Your task to perform on an android device: allow cookies in the chrome app Image 0: 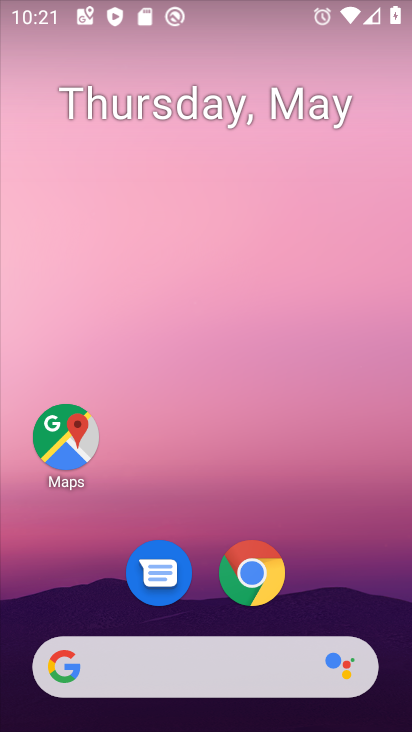
Step 0: click (244, 569)
Your task to perform on an android device: allow cookies in the chrome app Image 1: 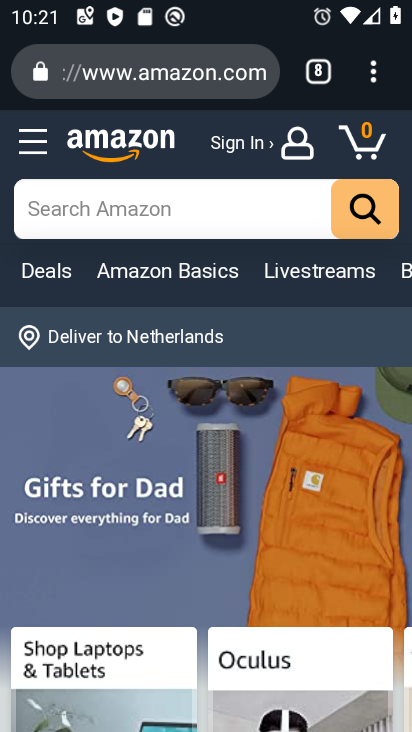
Step 1: click (365, 80)
Your task to perform on an android device: allow cookies in the chrome app Image 2: 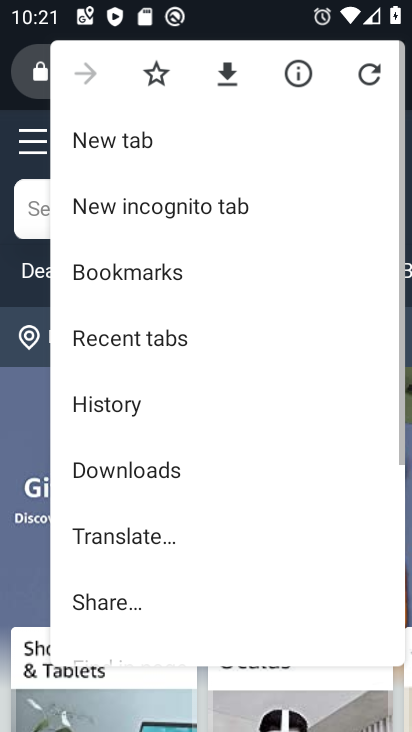
Step 2: drag from (146, 635) to (195, 281)
Your task to perform on an android device: allow cookies in the chrome app Image 3: 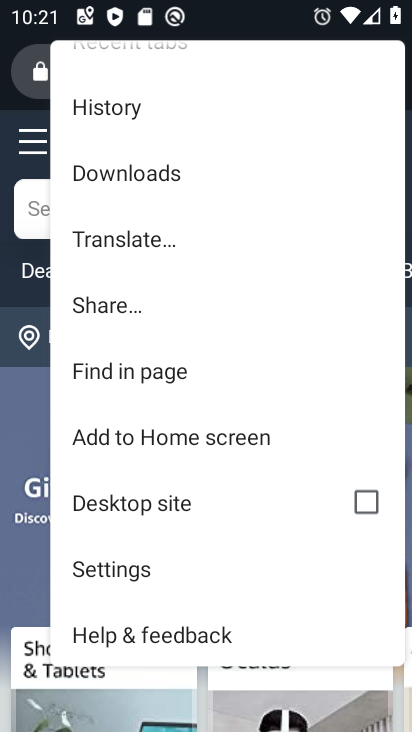
Step 3: click (199, 569)
Your task to perform on an android device: allow cookies in the chrome app Image 4: 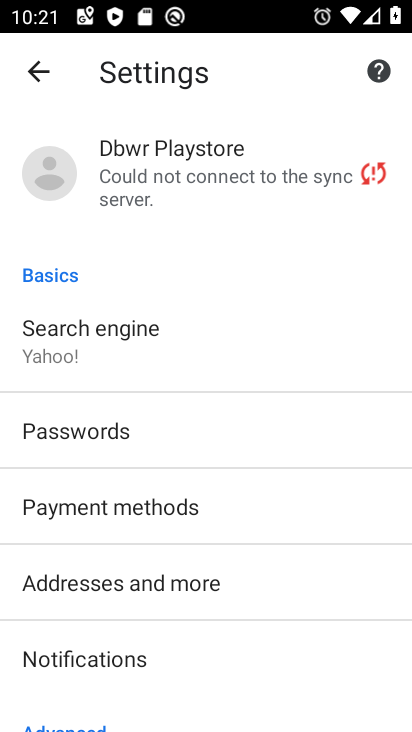
Step 4: drag from (187, 605) to (236, 305)
Your task to perform on an android device: allow cookies in the chrome app Image 5: 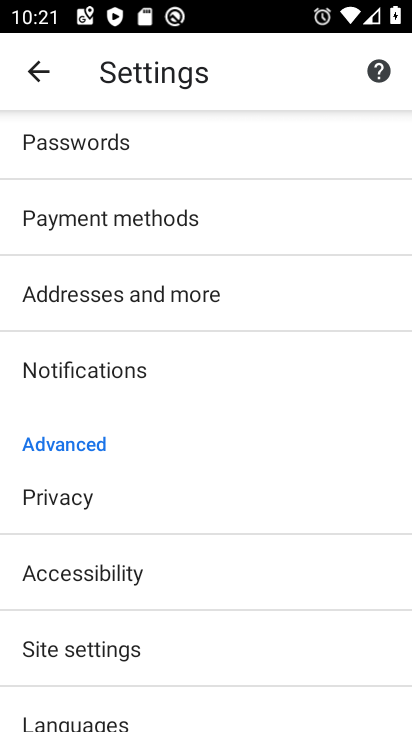
Step 5: click (110, 637)
Your task to perform on an android device: allow cookies in the chrome app Image 6: 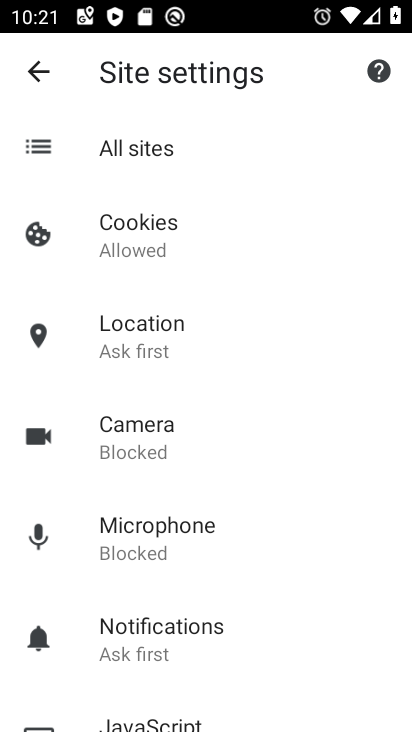
Step 6: click (189, 224)
Your task to perform on an android device: allow cookies in the chrome app Image 7: 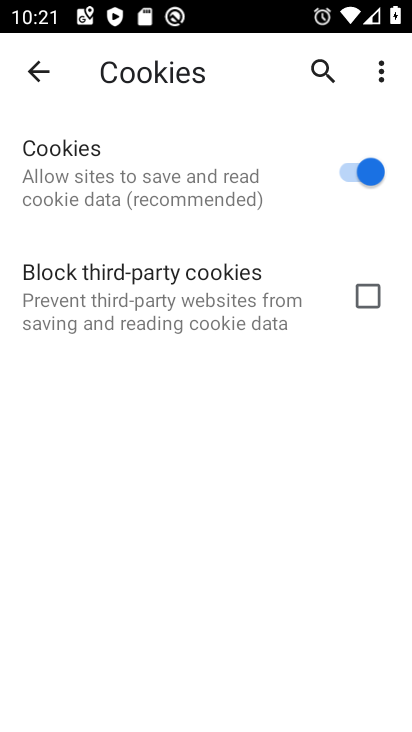
Step 7: task complete